Your task to perform on an android device: see sites visited before in the chrome app Image 0: 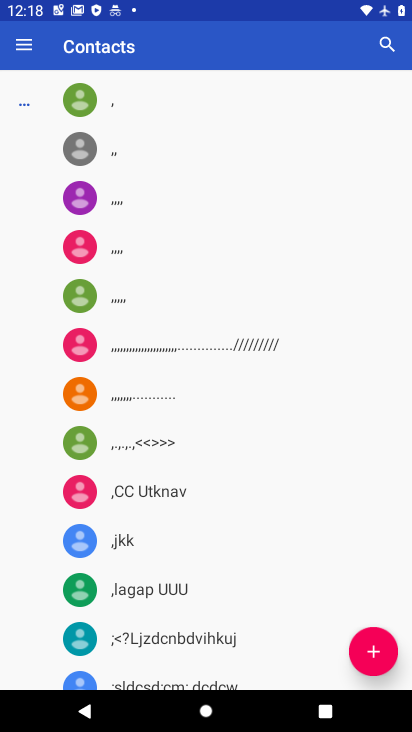
Step 0: press home button
Your task to perform on an android device: see sites visited before in the chrome app Image 1: 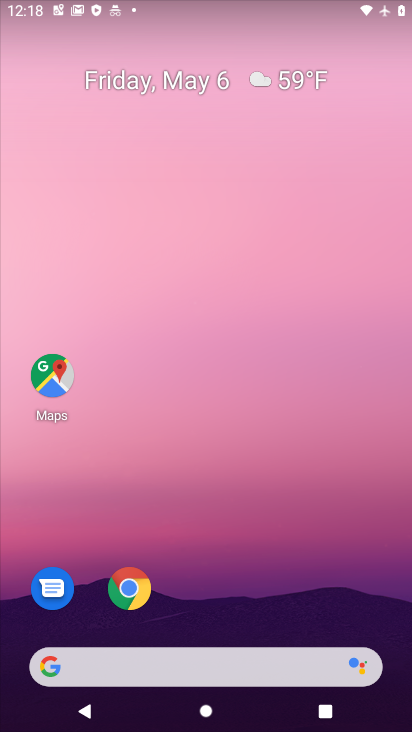
Step 1: drag from (277, 676) to (407, 224)
Your task to perform on an android device: see sites visited before in the chrome app Image 2: 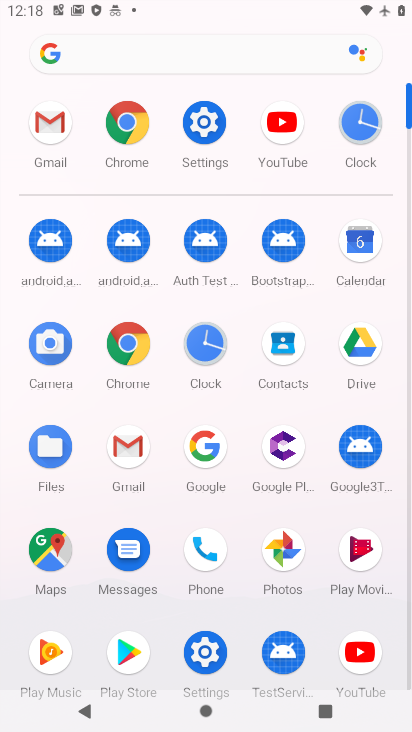
Step 2: click (121, 132)
Your task to perform on an android device: see sites visited before in the chrome app Image 3: 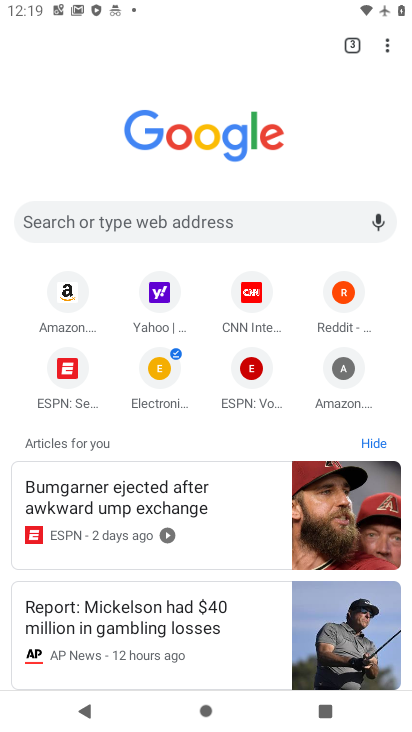
Step 3: task complete